Your task to perform on an android device: allow notifications from all sites in the chrome app Image 0: 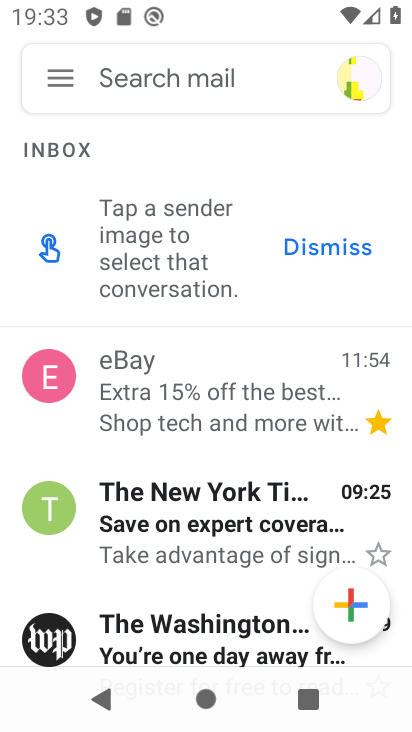
Step 0: press home button
Your task to perform on an android device: allow notifications from all sites in the chrome app Image 1: 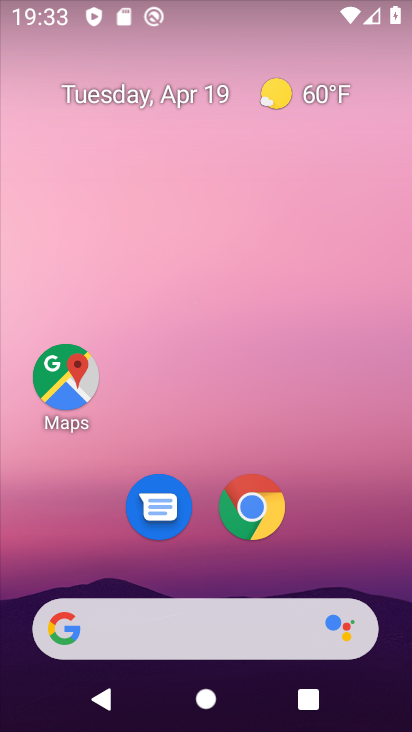
Step 1: click (244, 496)
Your task to perform on an android device: allow notifications from all sites in the chrome app Image 2: 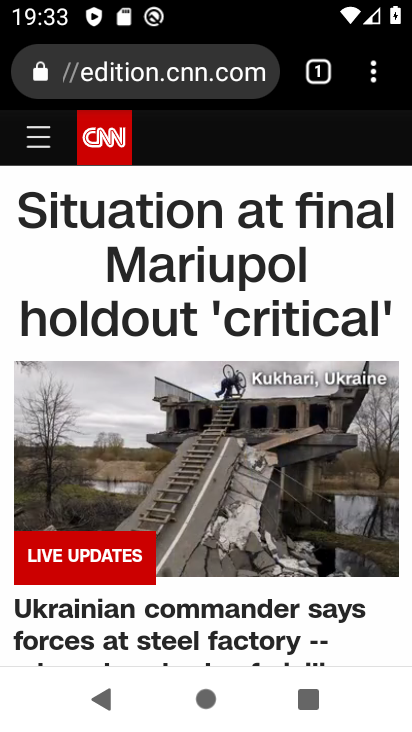
Step 2: click (373, 79)
Your task to perform on an android device: allow notifications from all sites in the chrome app Image 3: 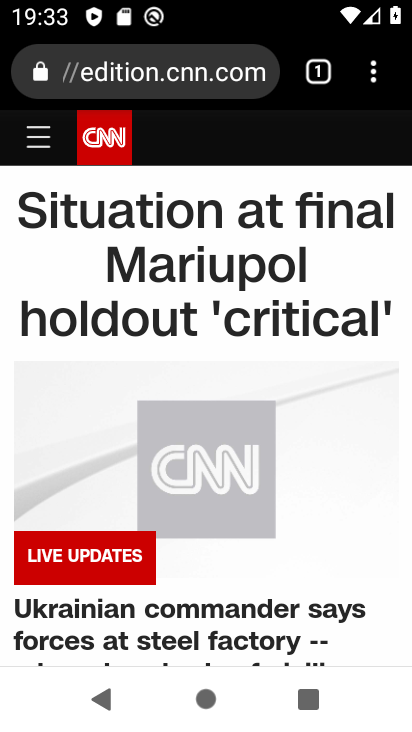
Step 3: click (373, 79)
Your task to perform on an android device: allow notifications from all sites in the chrome app Image 4: 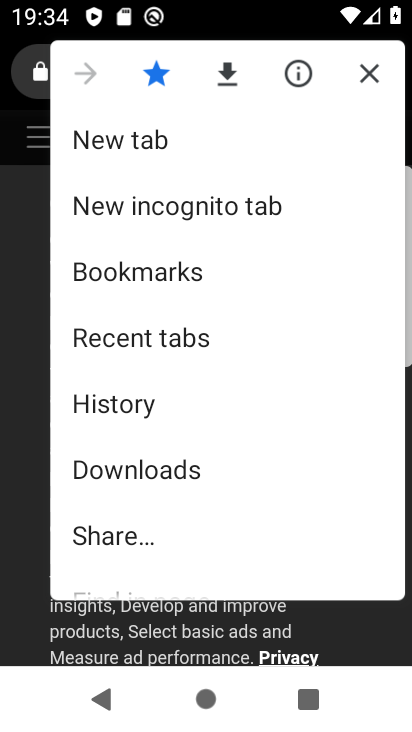
Step 4: drag from (279, 488) to (258, 147)
Your task to perform on an android device: allow notifications from all sites in the chrome app Image 5: 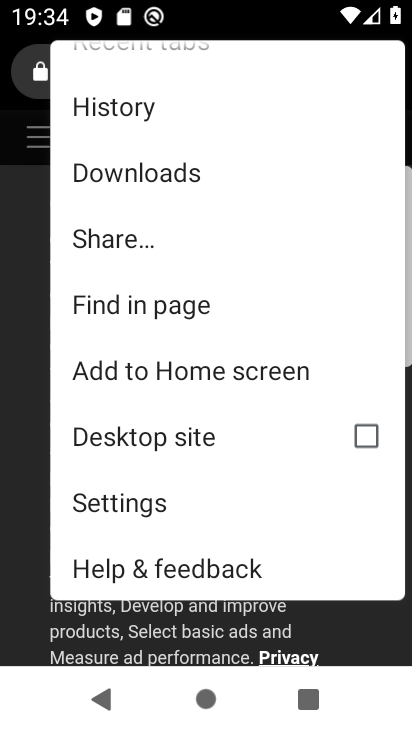
Step 5: click (199, 503)
Your task to perform on an android device: allow notifications from all sites in the chrome app Image 6: 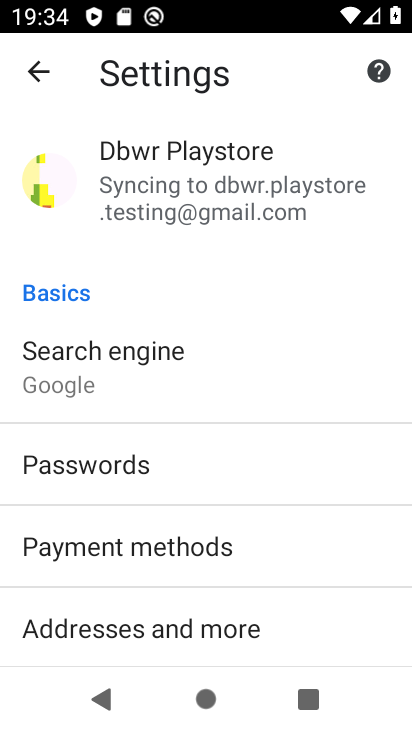
Step 6: drag from (285, 600) to (263, 209)
Your task to perform on an android device: allow notifications from all sites in the chrome app Image 7: 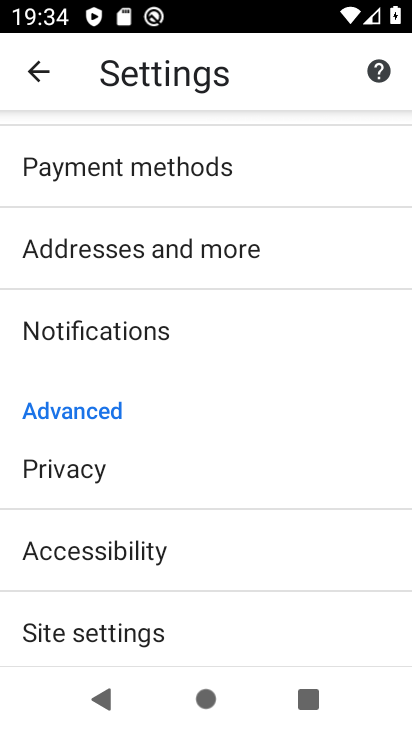
Step 7: click (245, 312)
Your task to perform on an android device: allow notifications from all sites in the chrome app Image 8: 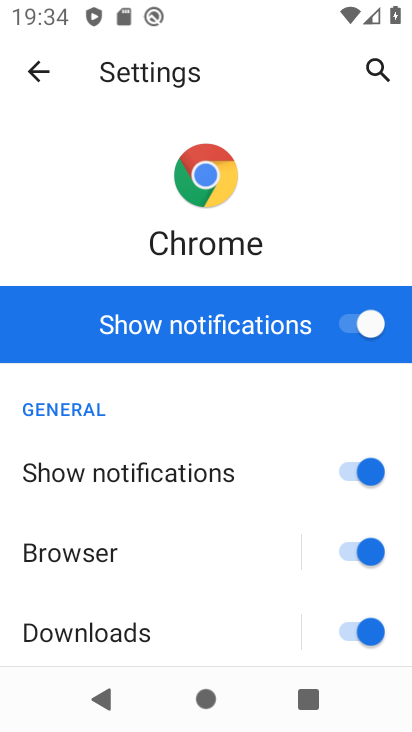
Step 8: task complete